Your task to perform on an android device: choose inbox layout in the gmail app Image 0: 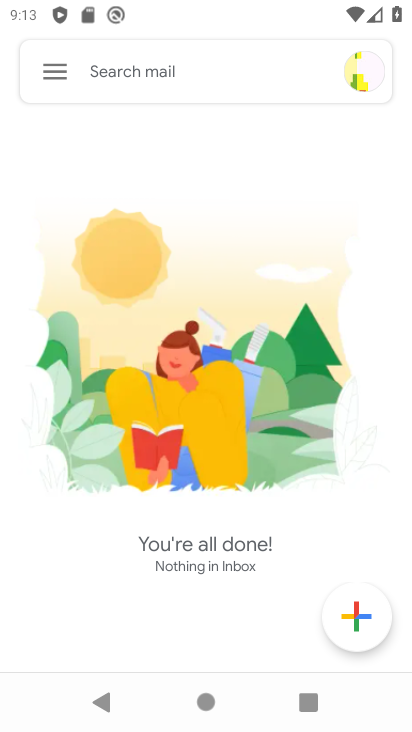
Step 0: press home button
Your task to perform on an android device: choose inbox layout in the gmail app Image 1: 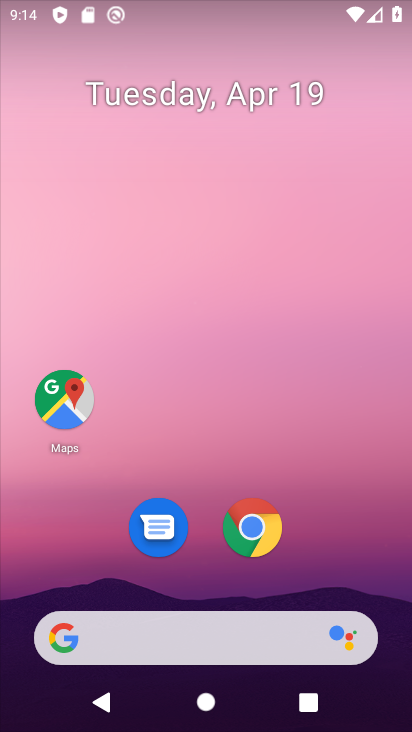
Step 1: drag from (278, 675) to (281, 93)
Your task to perform on an android device: choose inbox layout in the gmail app Image 2: 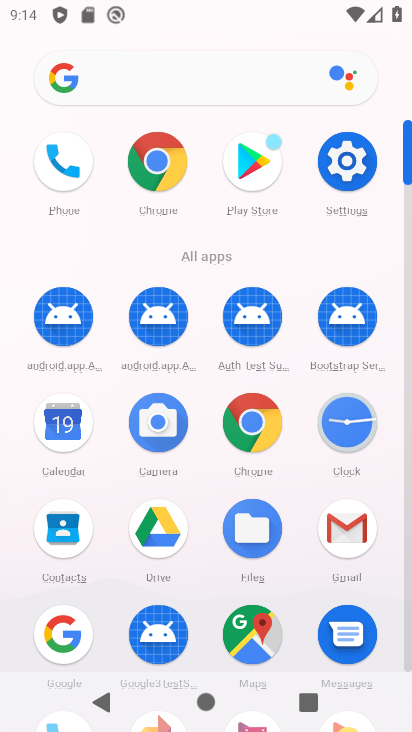
Step 2: click (344, 531)
Your task to perform on an android device: choose inbox layout in the gmail app Image 3: 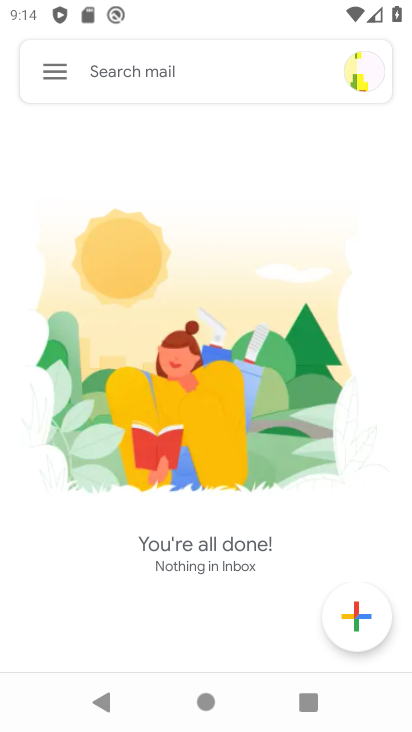
Step 3: click (56, 75)
Your task to perform on an android device: choose inbox layout in the gmail app Image 4: 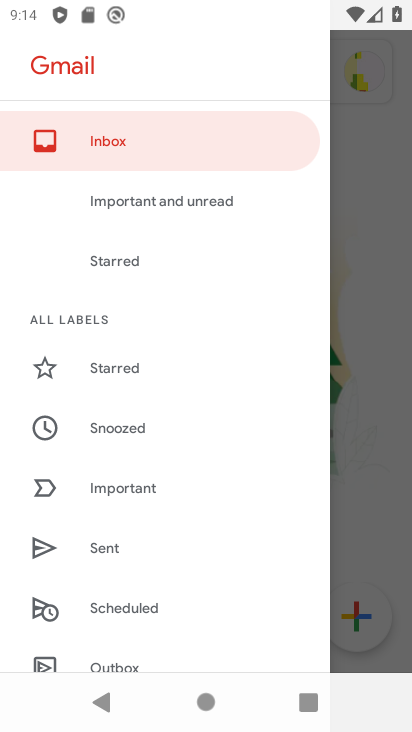
Step 4: drag from (117, 520) to (143, 196)
Your task to perform on an android device: choose inbox layout in the gmail app Image 5: 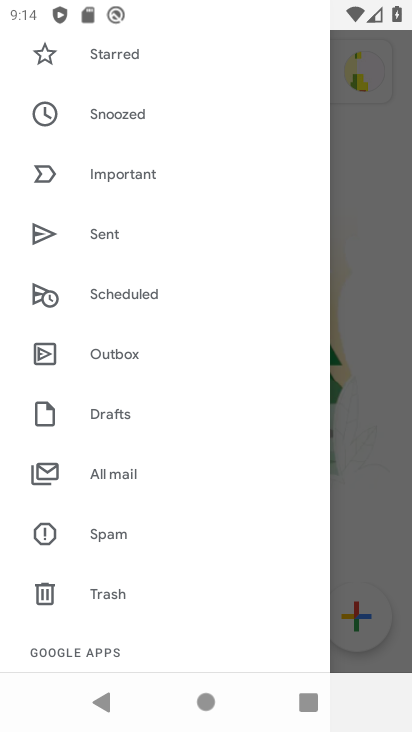
Step 5: drag from (132, 526) to (166, 305)
Your task to perform on an android device: choose inbox layout in the gmail app Image 6: 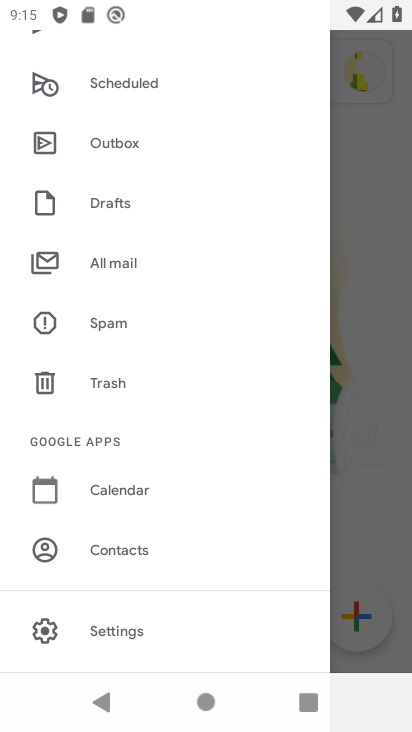
Step 6: click (123, 629)
Your task to perform on an android device: choose inbox layout in the gmail app Image 7: 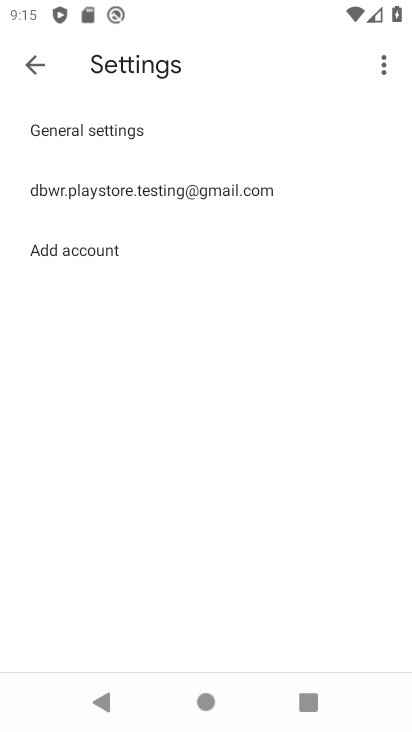
Step 7: click (119, 184)
Your task to perform on an android device: choose inbox layout in the gmail app Image 8: 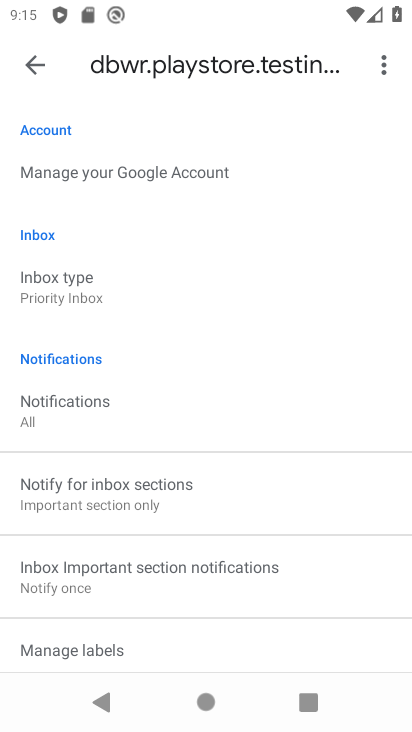
Step 8: task complete